Your task to perform on an android device: turn notification dots off Image 0: 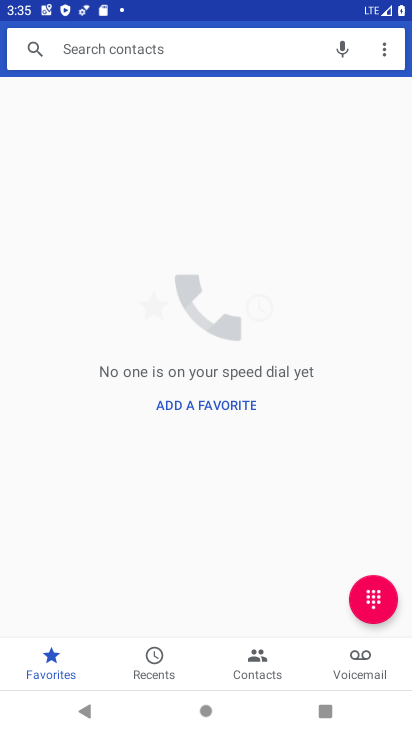
Step 0: press home button
Your task to perform on an android device: turn notification dots off Image 1: 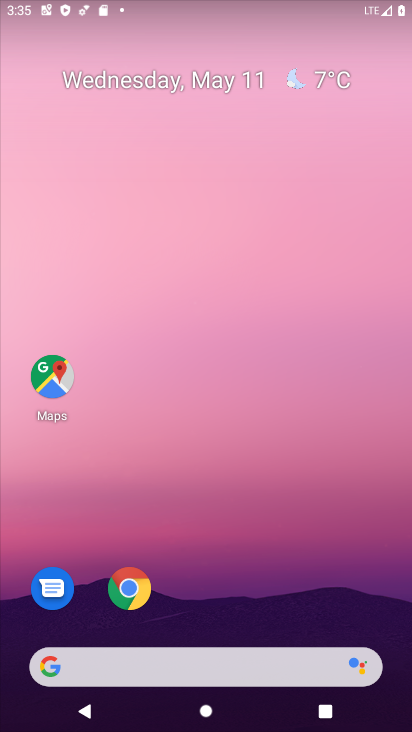
Step 1: drag from (234, 568) to (230, 223)
Your task to perform on an android device: turn notification dots off Image 2: 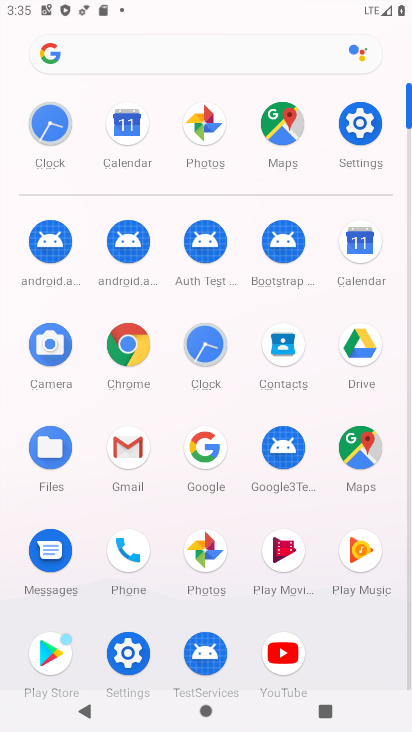
Step 2: click (363, 118)
Your task to perform on an android device: turn notification dots off Image 3: 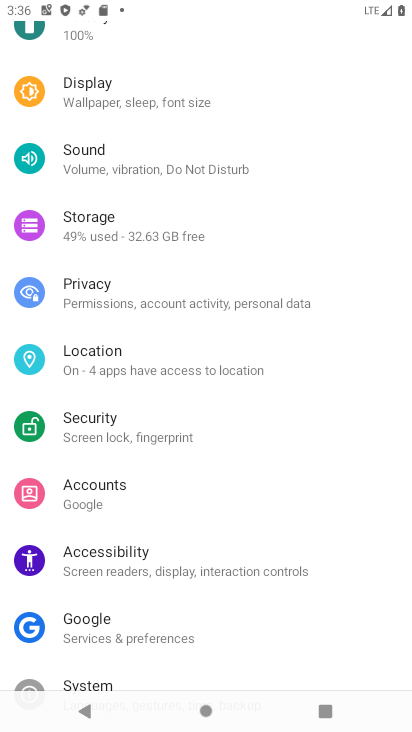
Step 3: drag from (224, 179) to (239, 634)
Your task to perform on an android device: turn notification dots off Image 4: 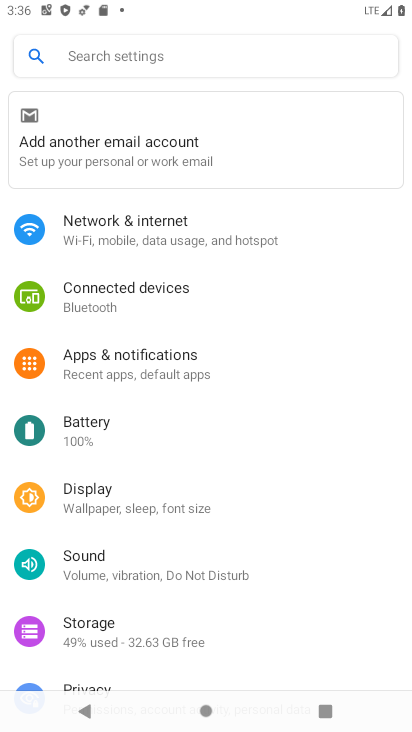
Step 4: click (141, 364)
Your task to perform on an android device: turn notification dots off Image 5: 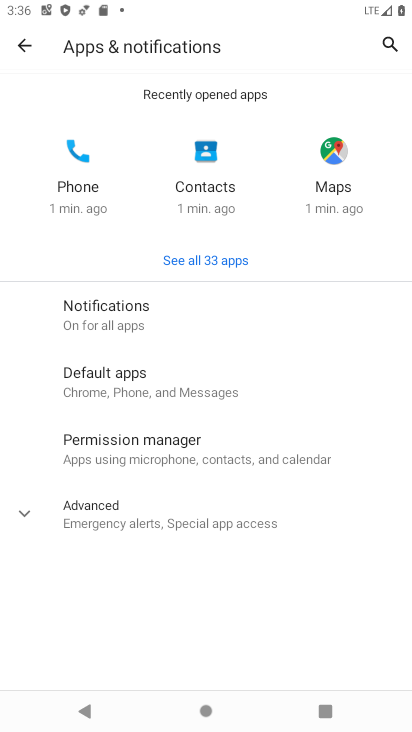
Step 5: click (146, 313)
Your task to perform on an android device: turn notification dots off Image 6: 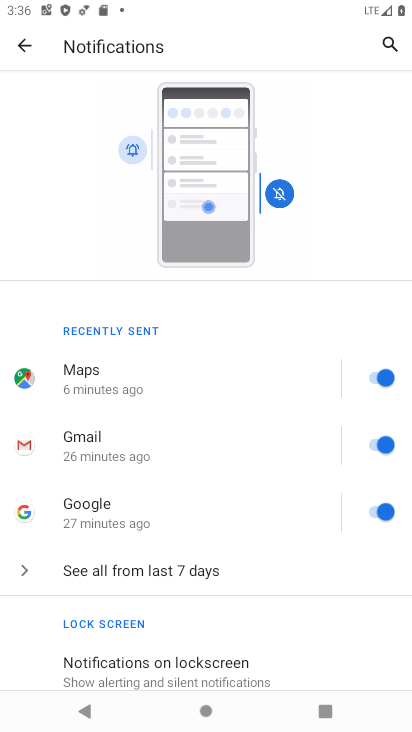
Step 6: drag from (208, 684) to (210, 282)
Your task to perform on an android device: turn notification dots off Image 7: 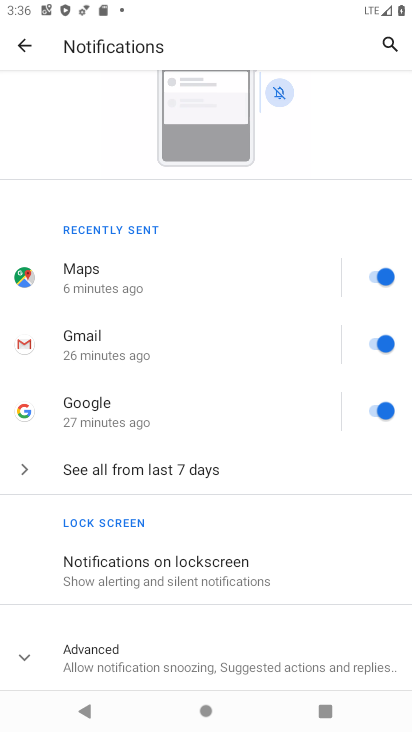
Step 7: click (133, 654)
Your task to perform on an android device: turn notification dots off Image 8: 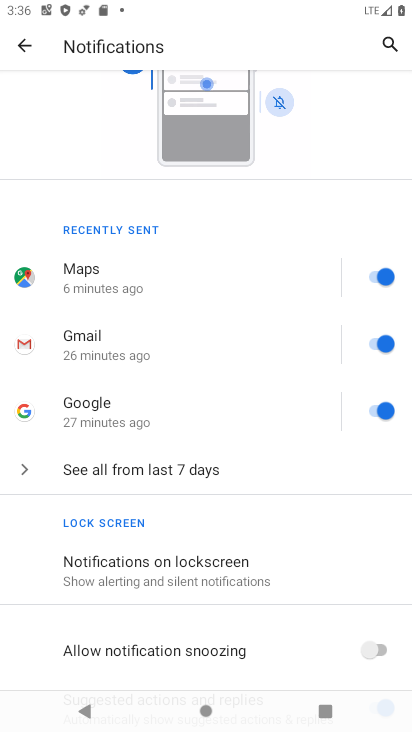
Step 8: drag from (324, 625) to (325, 309)
Your task to perform on an android device: turn notification dots off Image 9: 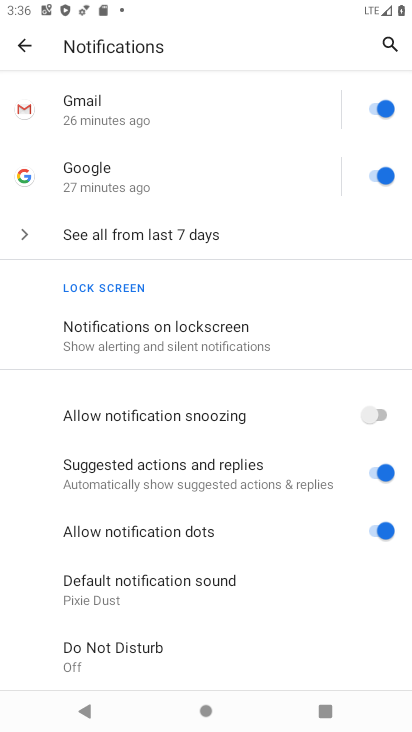
Step 9: click (376, 534)
Your task to perform on an android device: turn notification dots off Image 10: 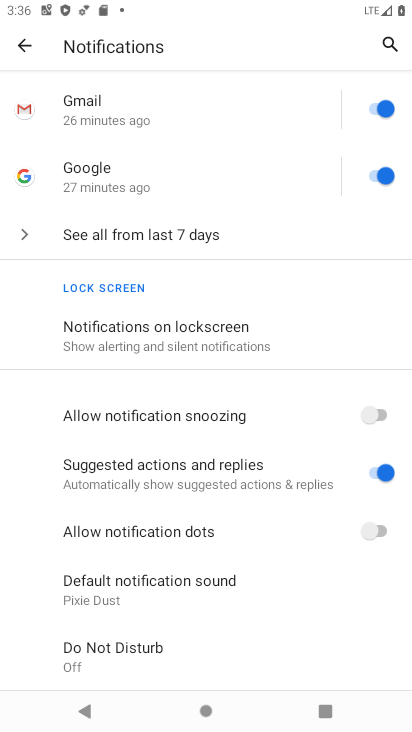
Step 10: task complete